Your task to perform on an android device: turn off priority inbox in the gmail app Image 0: 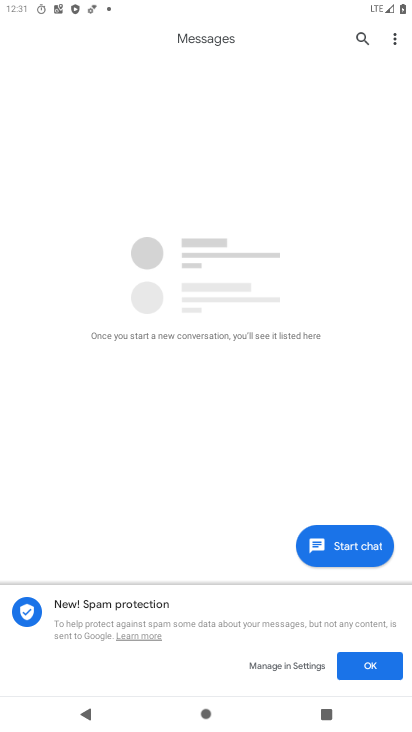
Step 0: press home button
Your task to perform on an android device: turn off priority inbox in the gmail app Image 1: 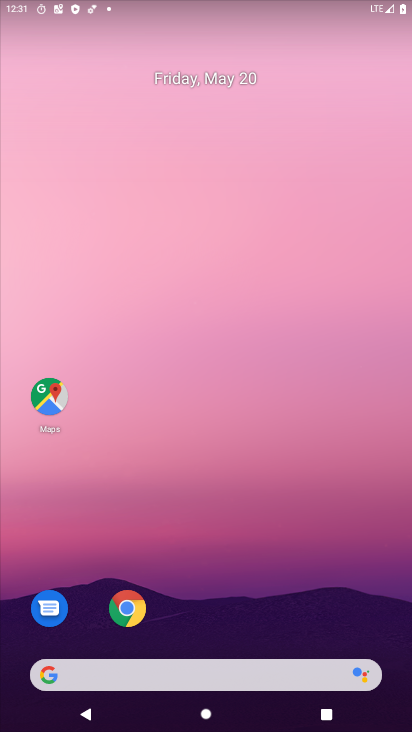
Step 1: drag from (388, 615) to (298, 87)
Your task to perform on an android device: turn off priority inbox in the gmail app Image 2: 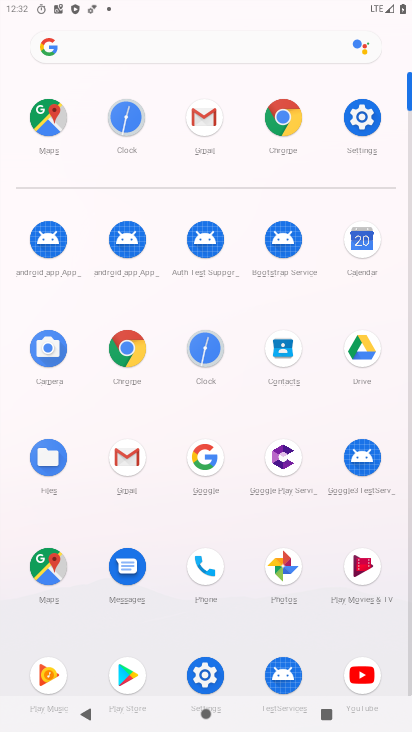
Step 2: click (128, 474)
Your task to perform on an android device: turn off priority inbox in the gmail app Image 3: 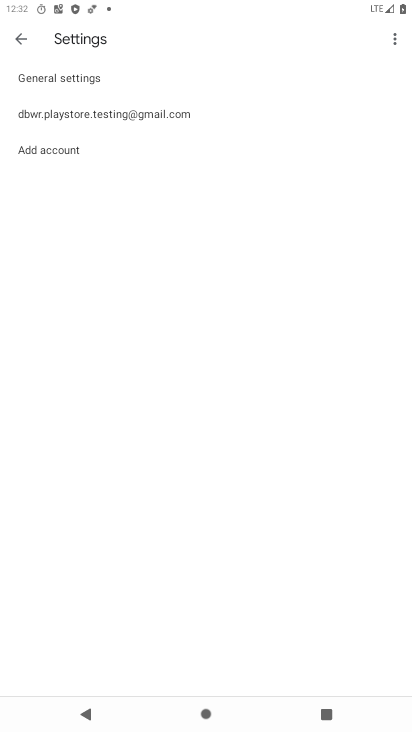
Step 3: click (157, 98)
Your task to perform on an android device: turn off priority inbox in the gmail app Image 4: 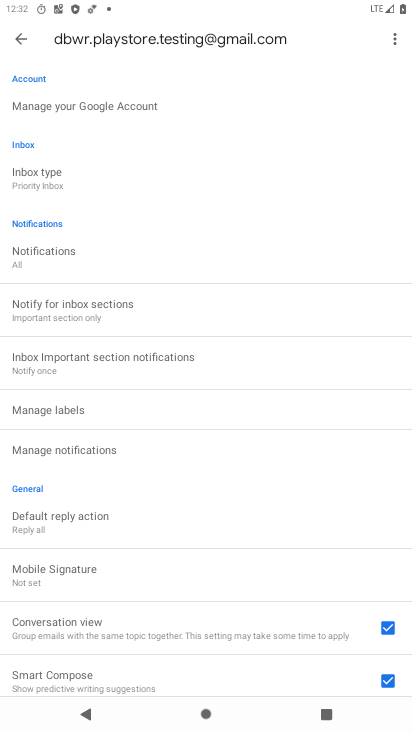
Step 4: click (55, 170)
Your task to perform on an android device: turn off priority inbox in the gmail app Image 5: 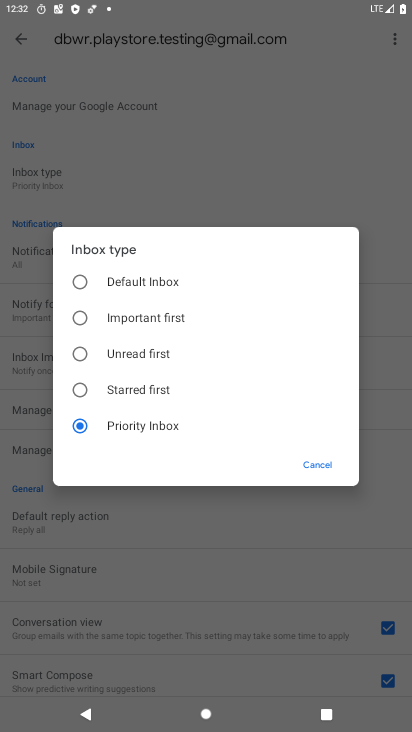
Step 5: click (80, 282)
Your task to perform on an android device: turn off priority inbox in the gmail app Image 6: 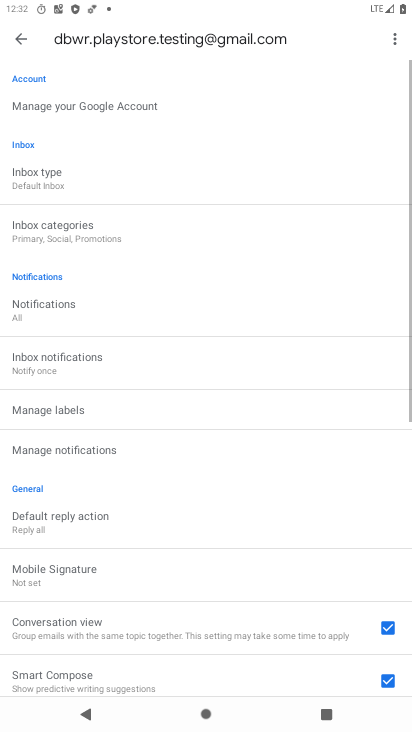
Step 6: task complete